Your task to perform on an android device: open a bookmark in the chrome app Image 0: 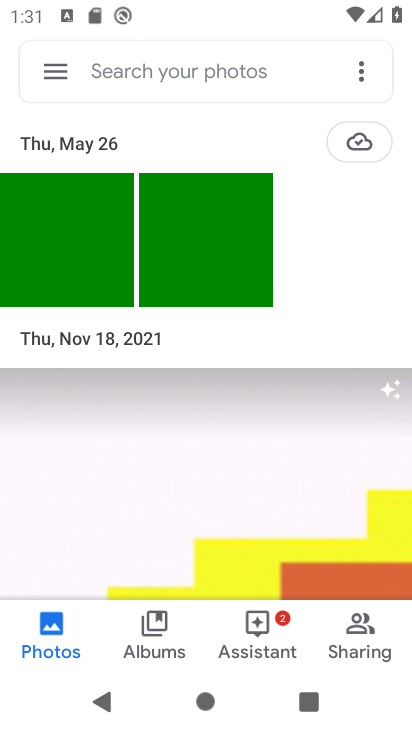
Step 0: press home button
Your task to perform on an android device: open a bookmark in the chrome app Image 1: 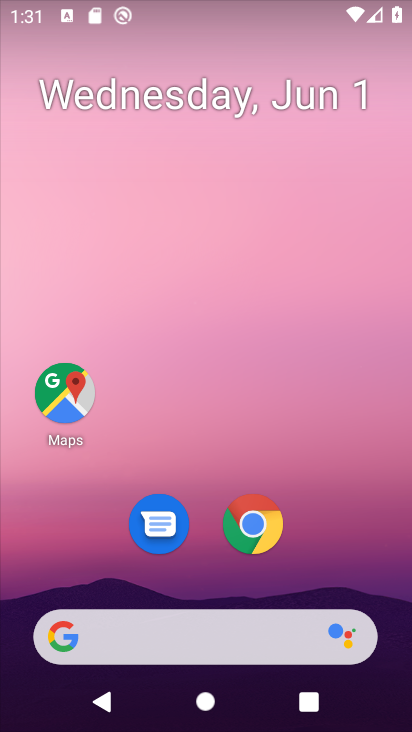
Step 1: drag from (194, 568) to (247, 38)
Your task to perform on an android device: open a bookmark in the chrome app Image 2: 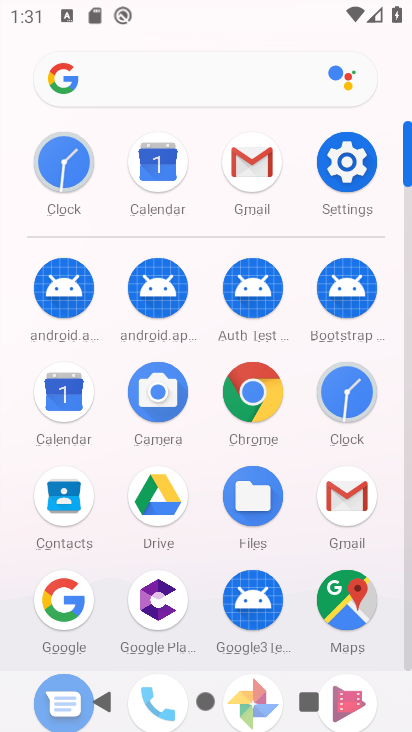
Step 2: click (244, 390)
Your task to perform on an android device: open a bookmark in the chrome app Image 3: 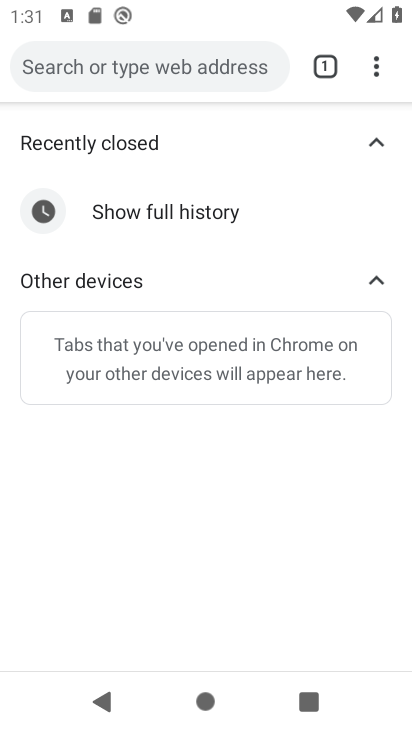
Step 3: click (371, 65)
Your task to perform on an android device: open a bookmark in the chrome app Image 4: 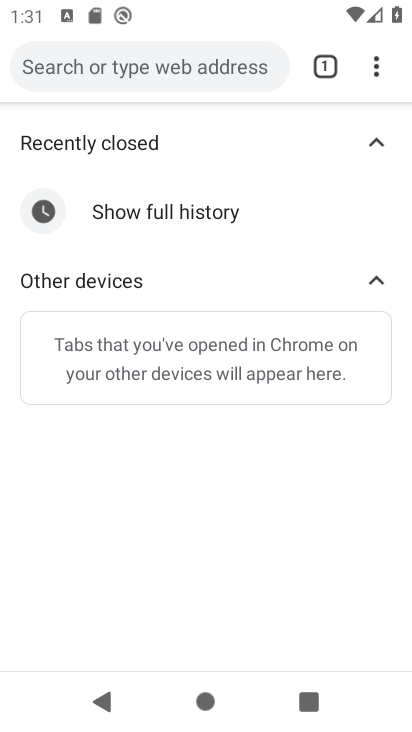
Step 4: click (371, 68)
Your task to perform on an android device: open a bookmark in the chrome app Image 5: 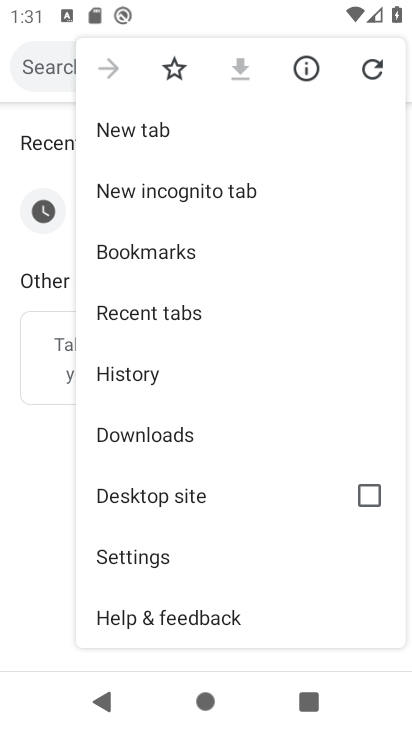
Step 5: click (193, 246)
Your task to perform on an android device: open a bookmark in the chrome app Image 6: 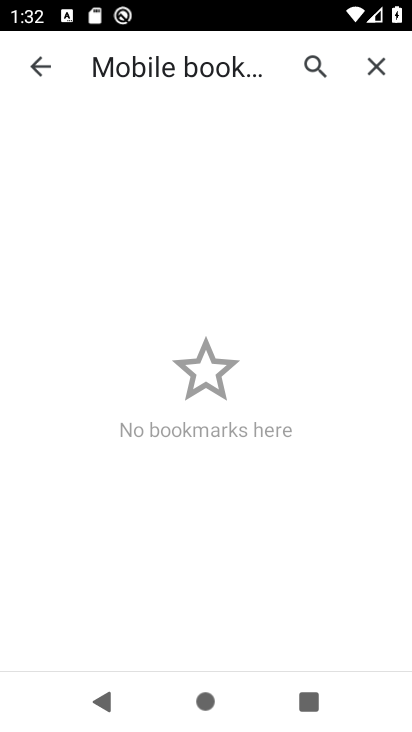
Step 6: task complete